Your task to perform on an android device: open the mobile data screen to see how much data has been used Image 0: 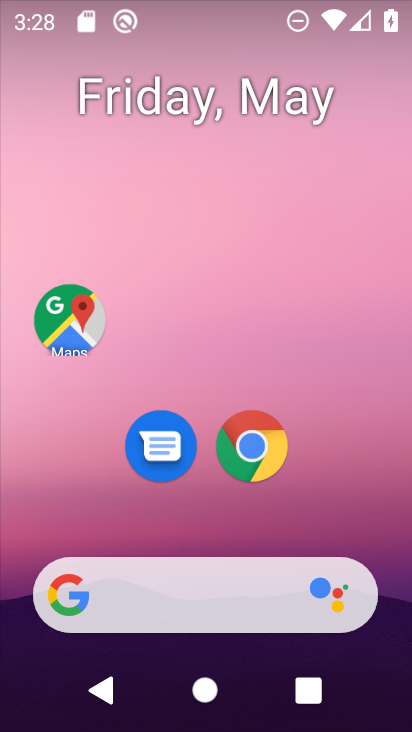
Step 0: drag from (245, 15) to (239, 331)
Your task to perform on an android device: open the mobile data screen to see how much data has been used Image 1: 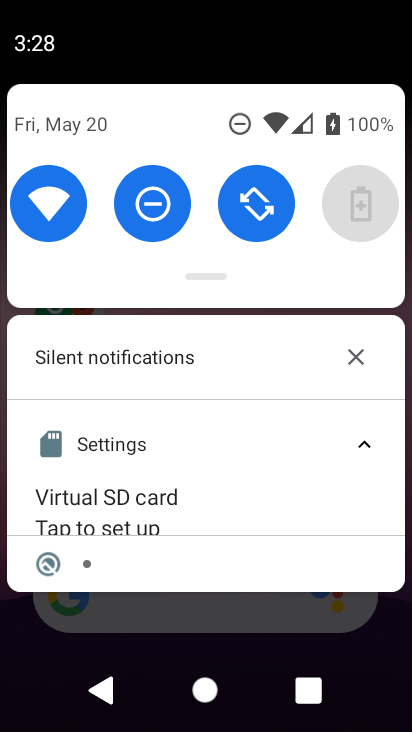
Step 1: drag from (305, 191) to (311, 651)
Your task to perform on an android device: open the mobile data screen to see how much data has been used Image 2: 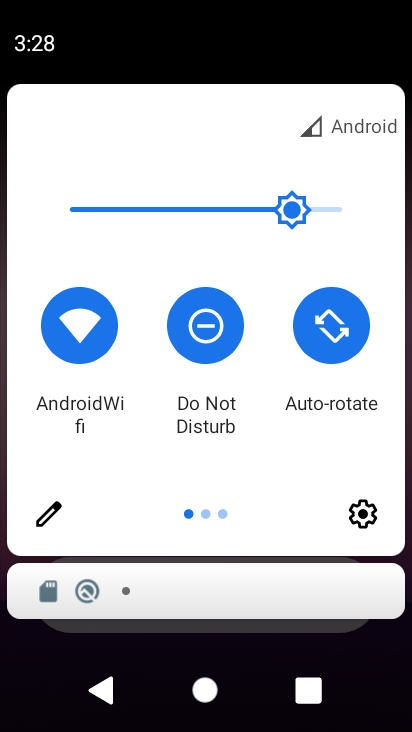
Step 2: drag from (379, 300) to (0, 254)
Your task to perform on an android device: open the mobile data screen to see how much data has been used Image 3: 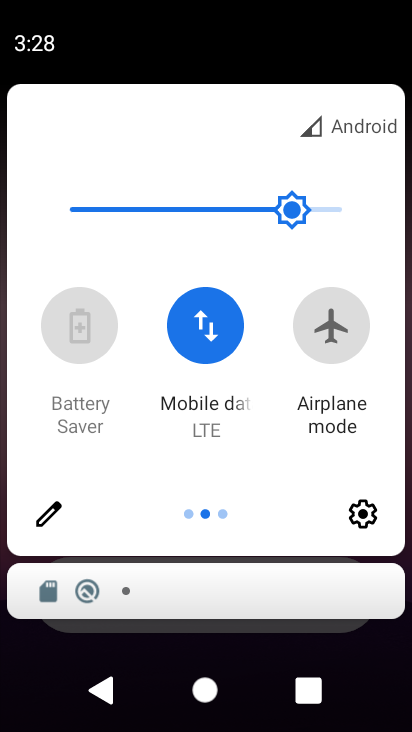
Step 3: click (204, 320)
Your task to perform on an android device: open the mobile data screen to see how much data has been used Image 4: 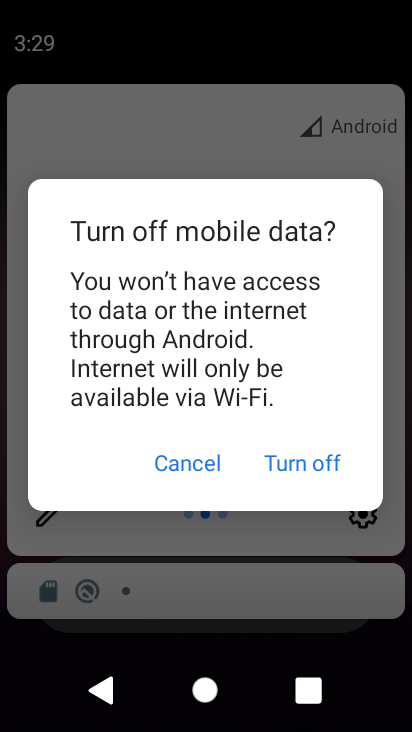
Step 4: click (171, 464)
Your task to perform on an android device: open the mobile data screen to see how much data has been used Image 5: 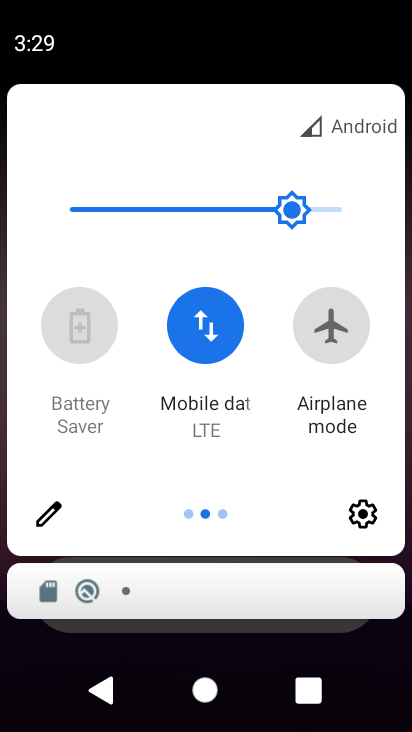
Step 5: click (215, 331)
Your task to perform on an android device: open the mobile data screen to see how much data has been used Image 6: 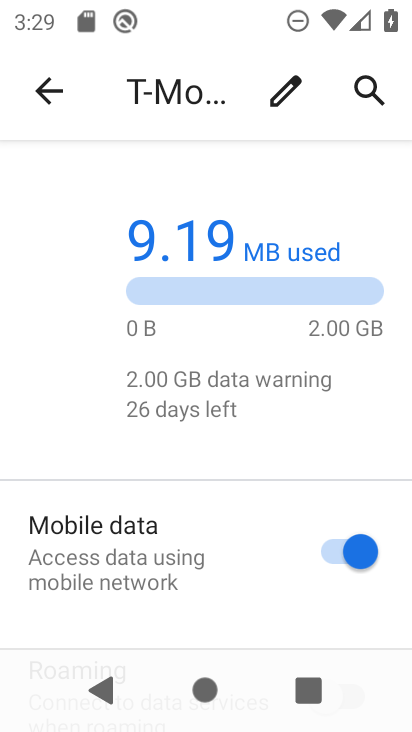
Step 6: task complete